Your task to perform on an android device: turn on airplane mode Image 0: 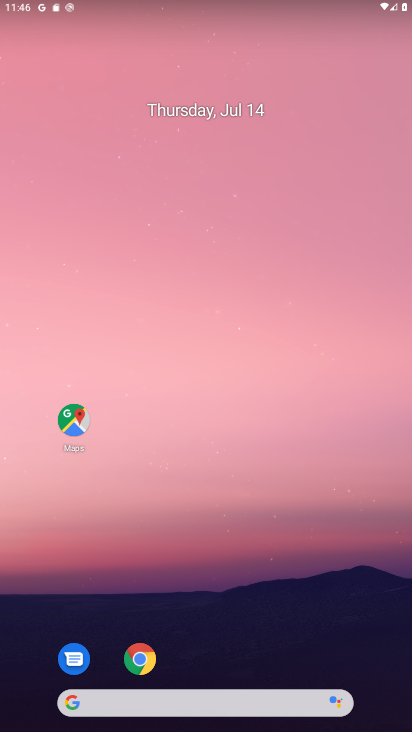
Step 0: drag from (244, 618) to (207, 157)
Your task to perform on an android device: turn on airplane mode Image 1: 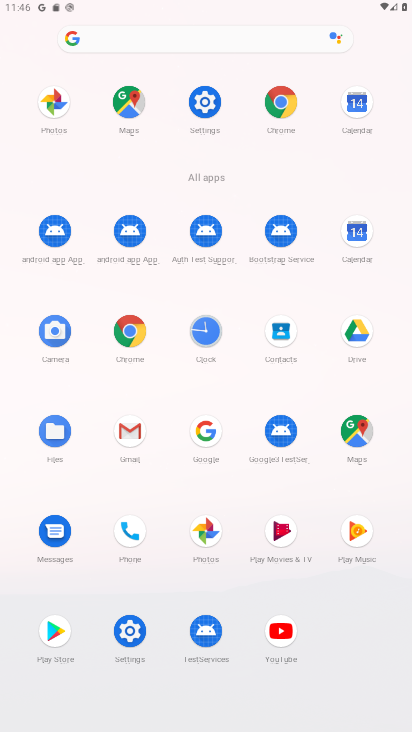
Step 1: click (201, 109)
Your task to perform on an android device: turn on airplane mode Image 2: 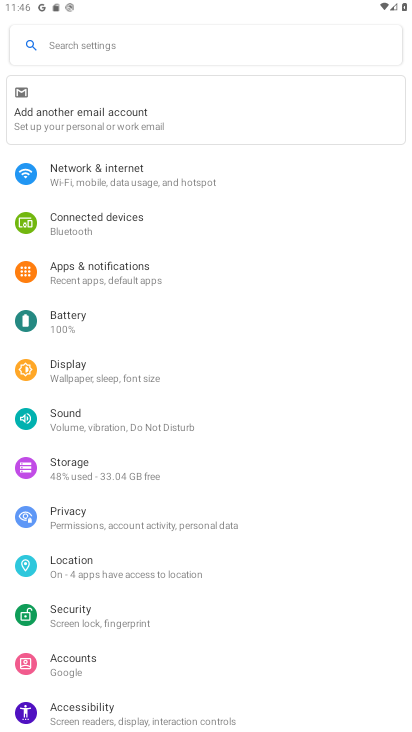
Step 2: click (183, 170)
Your task to perform on an android device: turn on airplane mode Image 3: 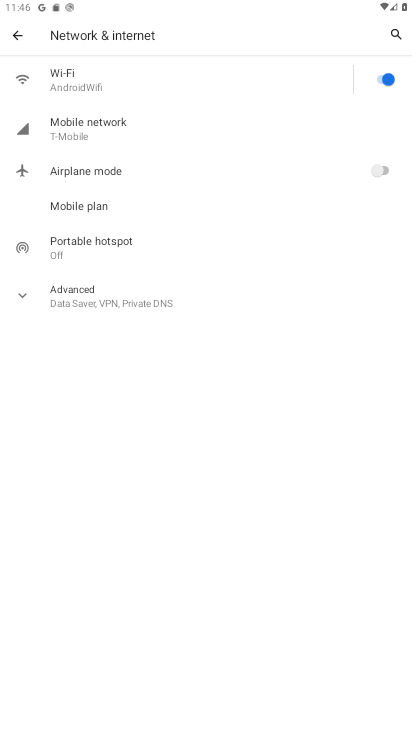
Step 3: click (379, 174)
Your task to perform on an android device: turn on airplane mode Image 4: 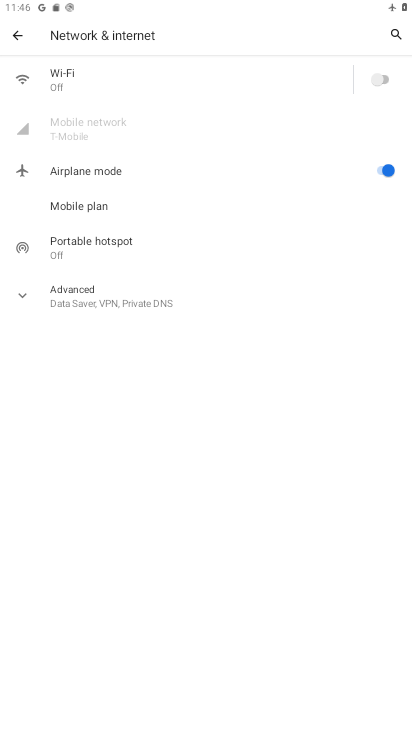
Step 4: task complete